Your task to perform on an android device: toggle show notifications on the lock screen Image 0: 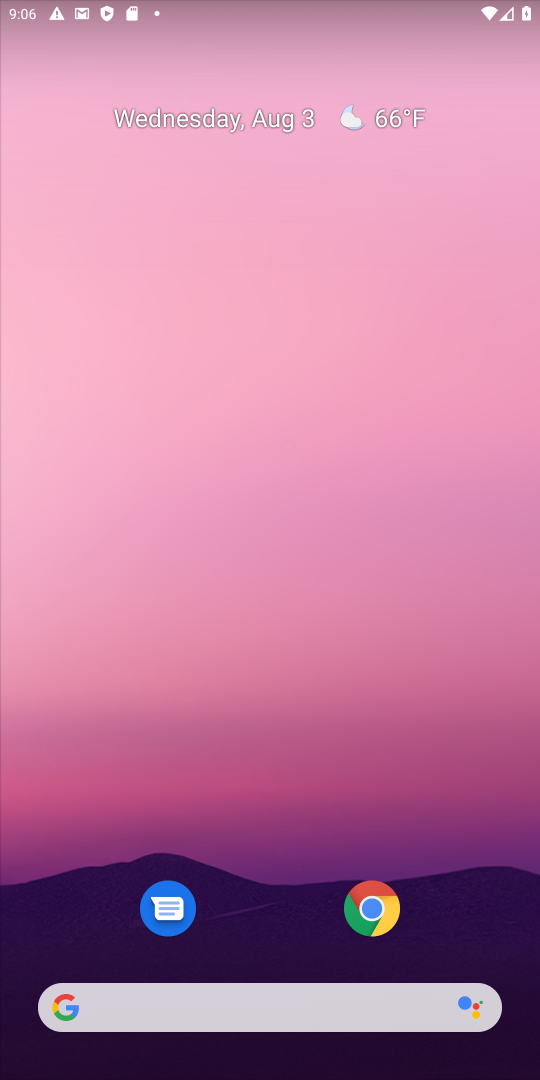
Step 0: drag from (172, 996) to (158, 131)
Your task to perform on an android device: toggle show notifications on the lock screen Image 1: 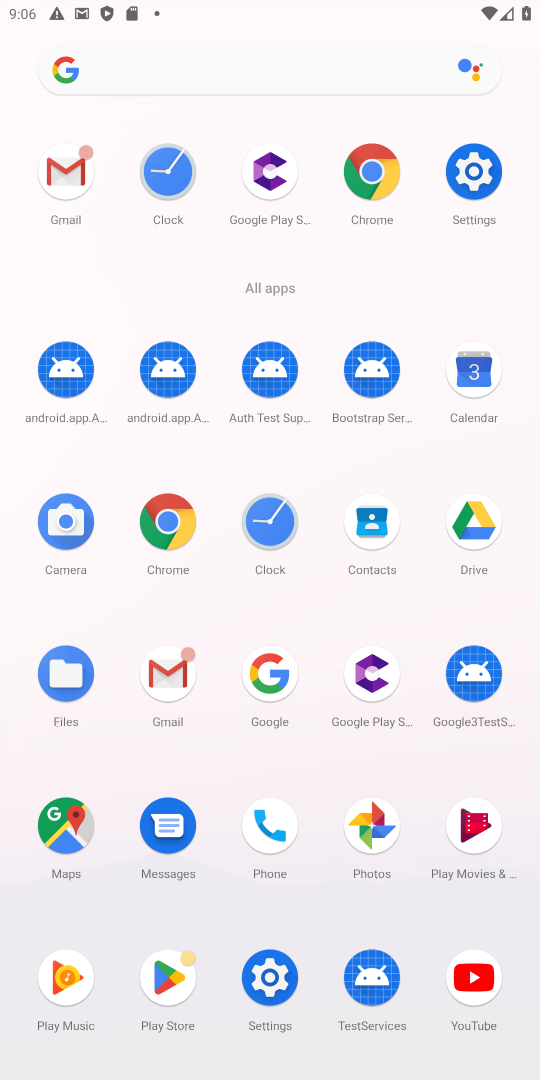
Step 1: click (481, 171)
Your task to perform on an android device: toggle show notifications on the lock screen Image 2: 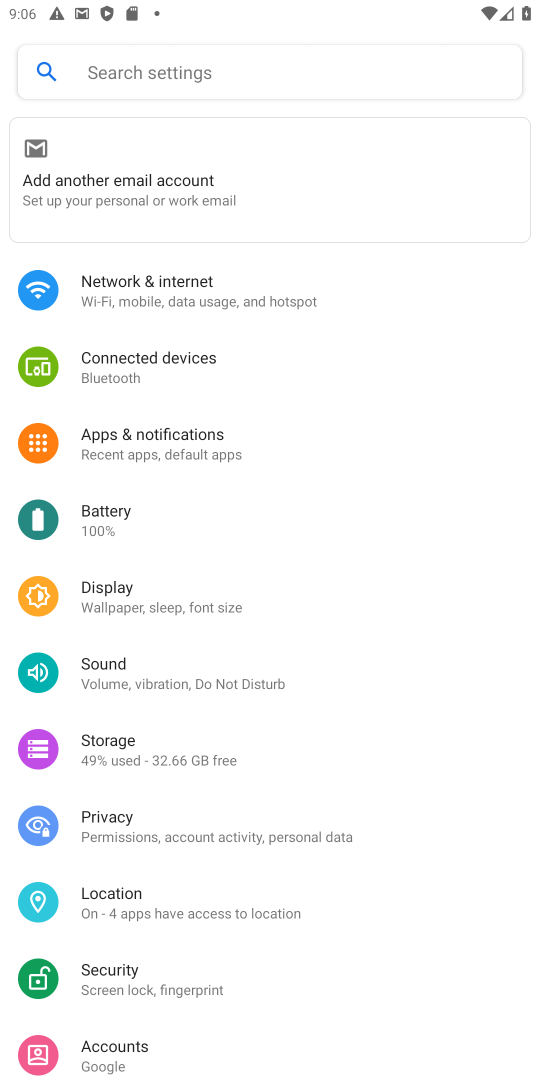
Step 2: click (168, 456)
Your task to perform on an android device: toggle show notifications on the lock screen Image 3: 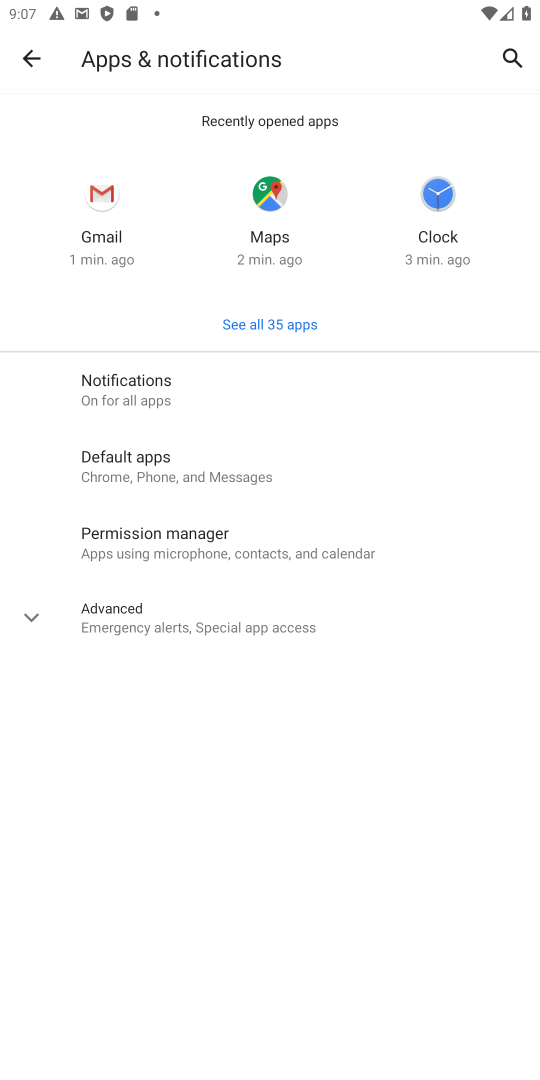
Step 3: click (170, 410)
Your task to perform on an android device: toggle show notifications on the lock screen Image 4: 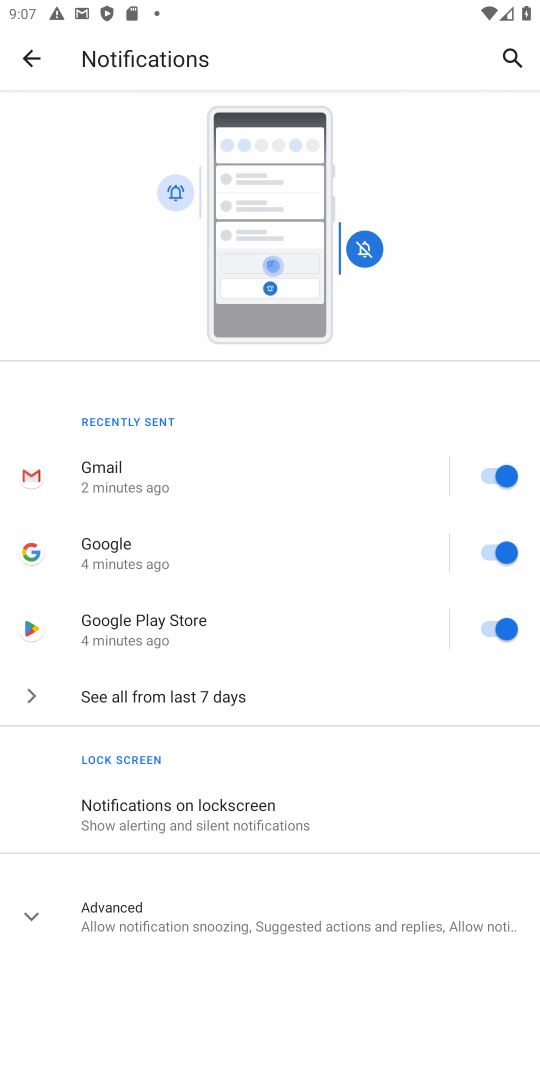
Step 4: click (259, 814)
Your task to perform on an android device: toggle show notifications on the lock screen Image 5: 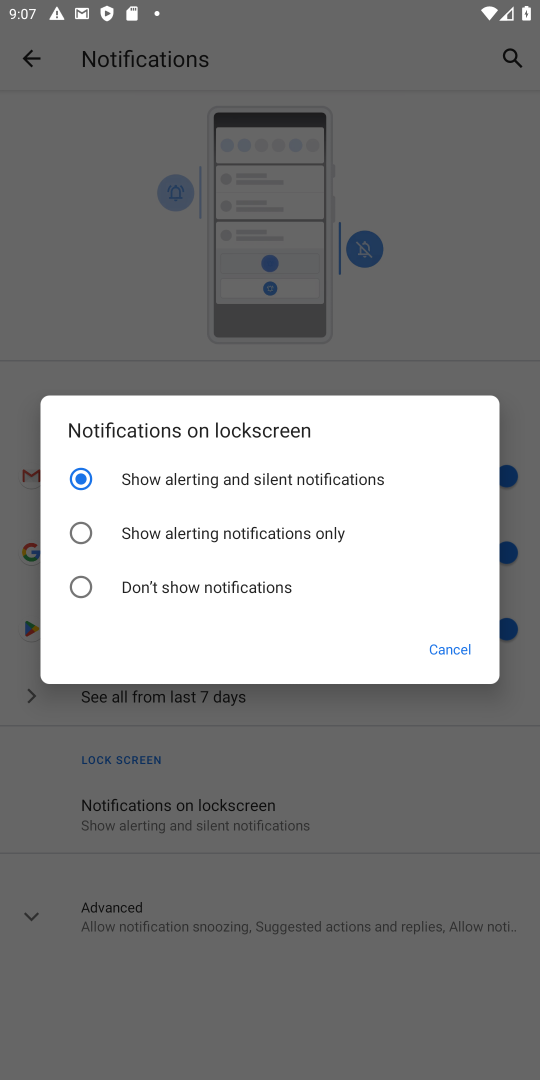
Step 5: click (83, 576)
Your task to perform on an android device: toggle show notifications on the lock screen Image 6: 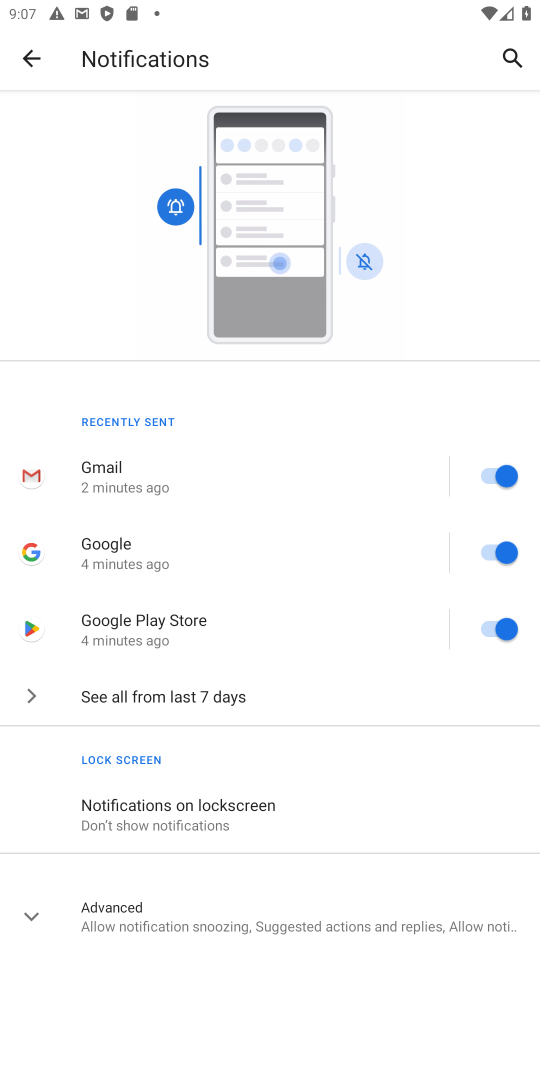
Step 6: task complete